Your task to perform on an android device: turn on translation in the chrome app Image 0: 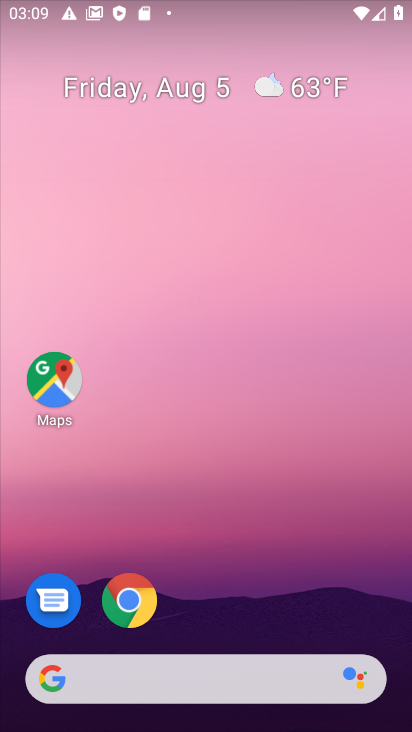
Step 0: click (132, 603)
Your task to perform on an android device: turn on translation in the chrome app Image 1: 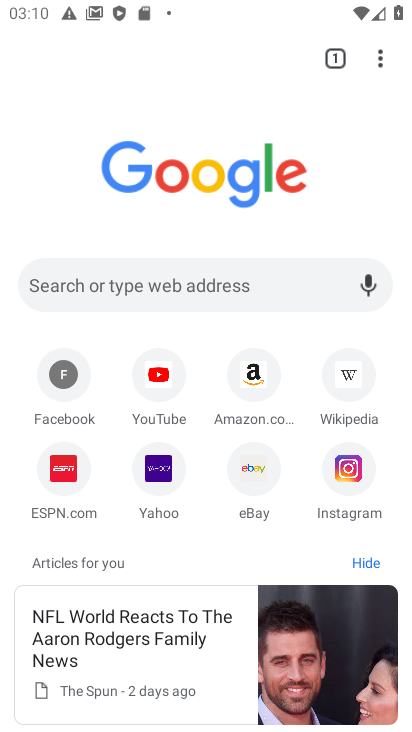
Step 1: click (379, 62)
Your task to perform on an android device: turn on translation in the chrome app Image 2: 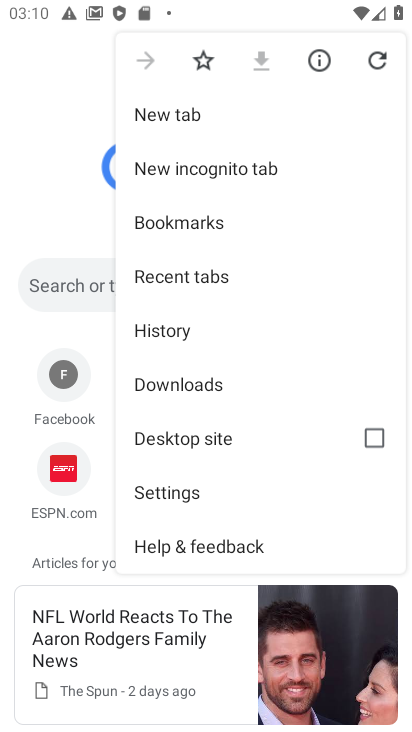
Step 2: click (169, 491)
Your task to perform on an android device: turn on translation in the chrome app Image 3: 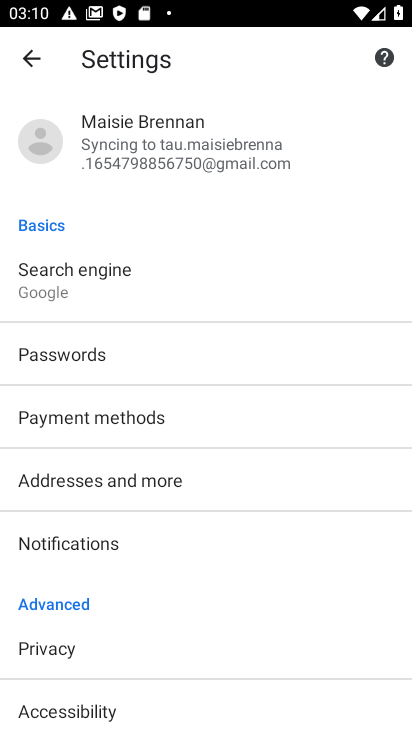
Step 3: drag from (106, 708) to (154, 588)
Your task to perform on an android device: turn on translation in the chrome app Image 4: 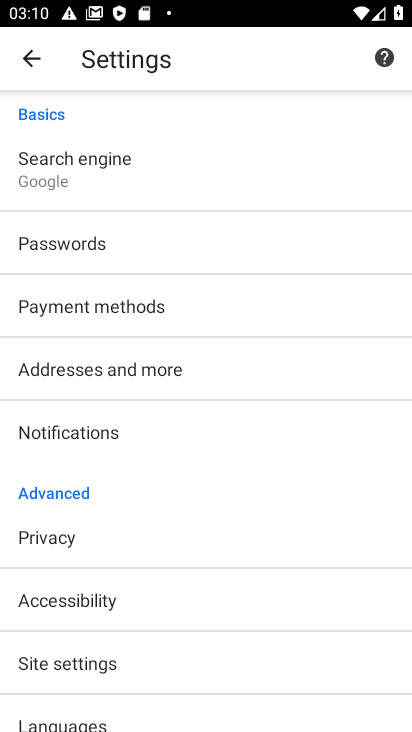
Step 4: drag from (116, 629) to (218, 472)
Your task to perform on an android device: turn on translation in the chrome app Image 5: 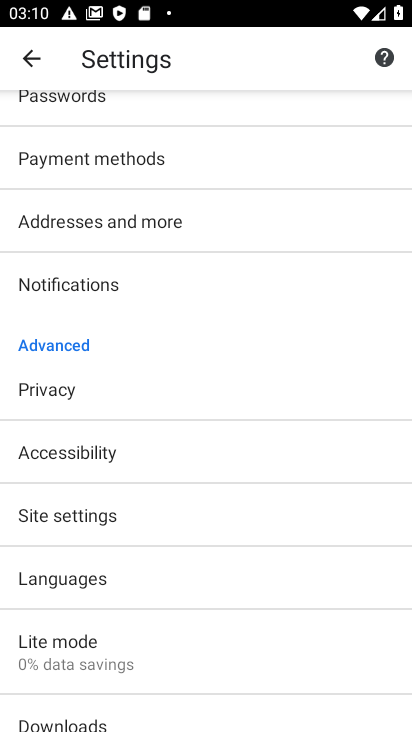
Step 5: click (79, 581)
Your task to perform on an android device: turn on translation in the chrome app Image 6: 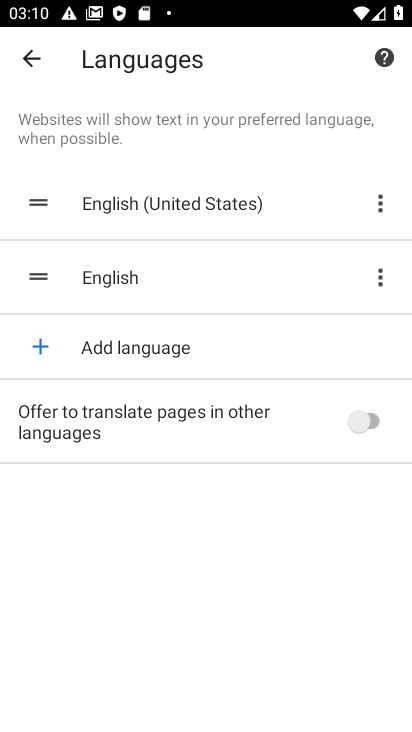
Step 6: click (362, 418)
Your task to perform on an android device: turn on translation in the chrome app Image 7: 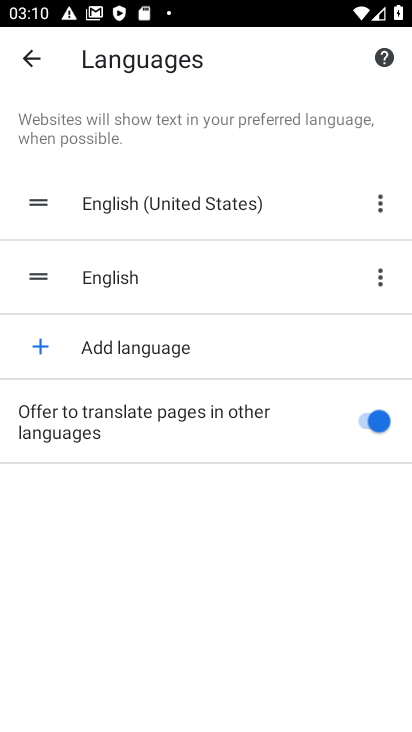
Step 7: task complete